Your task to perform on an android device: Is it going to rain tomorrow? Image 0: 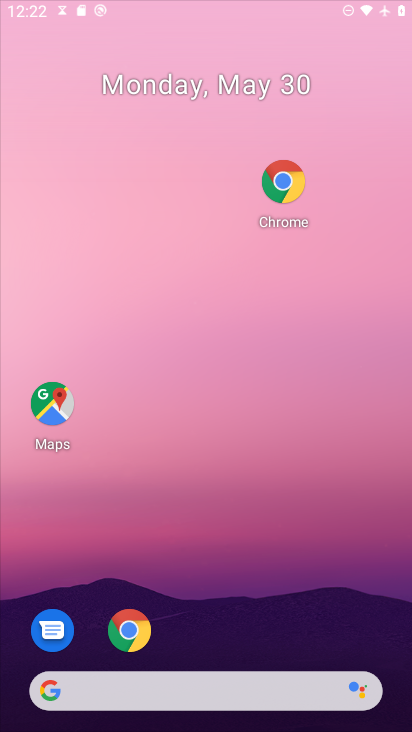
Step 0: drag from (263, 581) to (155, 60)
Your task to perform on an android device: Is it going to rain tomorrow? Image 1: 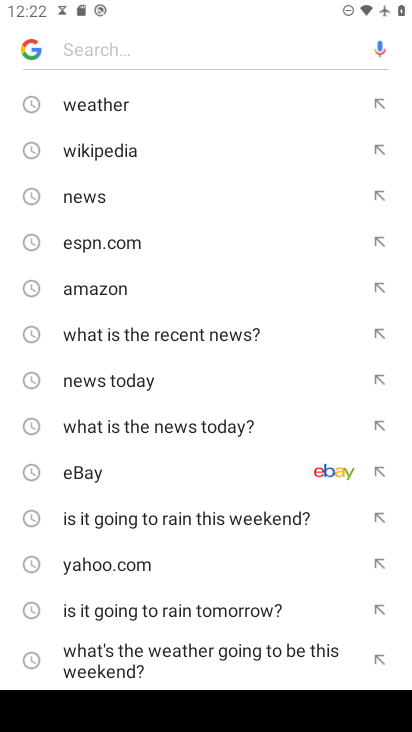
Step 1: press back button
Your task to perform on an android device: Is it going to rain tomorrow? Image 2: 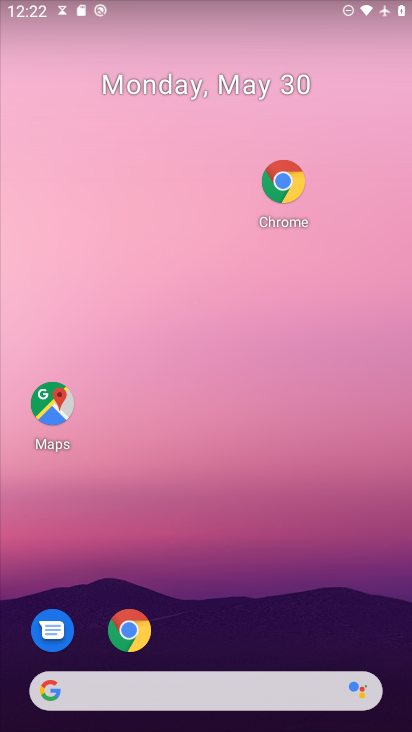
Step 2: drag from (14, 197) to (395, 463)
Your task to perform on an android device: Is it going to rain tomorrow? Image 3: 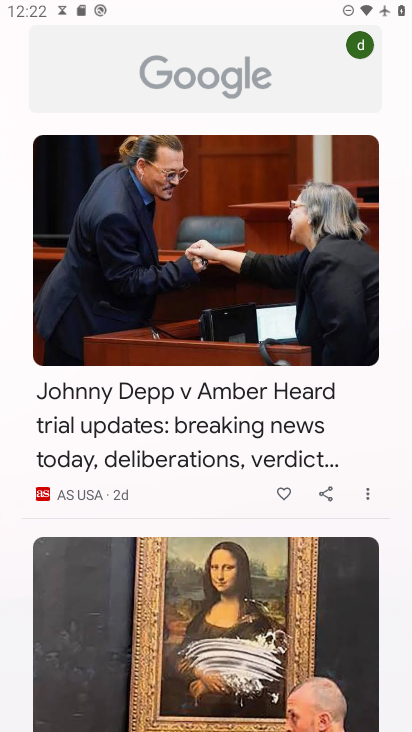
Step 3: drag from (180, 228) to (236, 583)
Your task to perform on an android device: Is it going to rain tomorrow? Image 4: 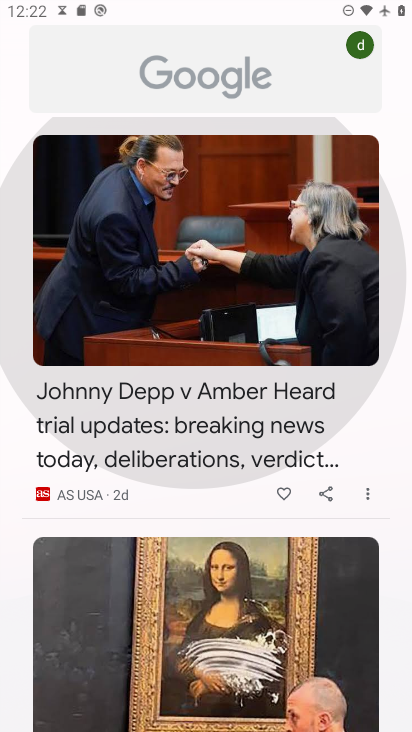
Step 4: drag from (137, 340) to (182, 702)
Your task to perform on an android device: Is it going to rain tomorrow? Image 5: 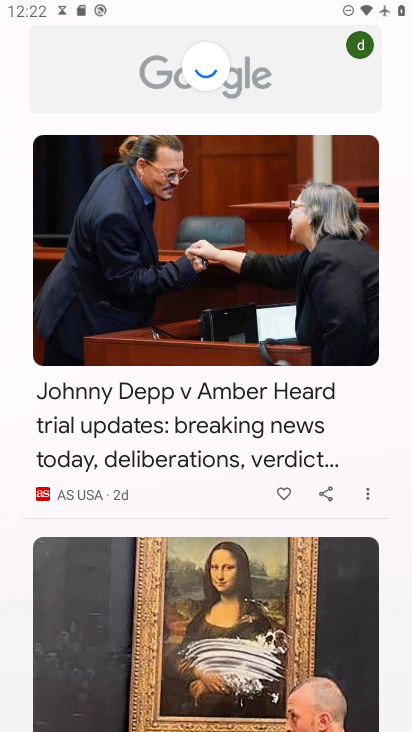
Step 5: drag from (125, 255) to (228, 382)
Your task to perform on an android device: Is it going to rain tomorrow? Image 6: 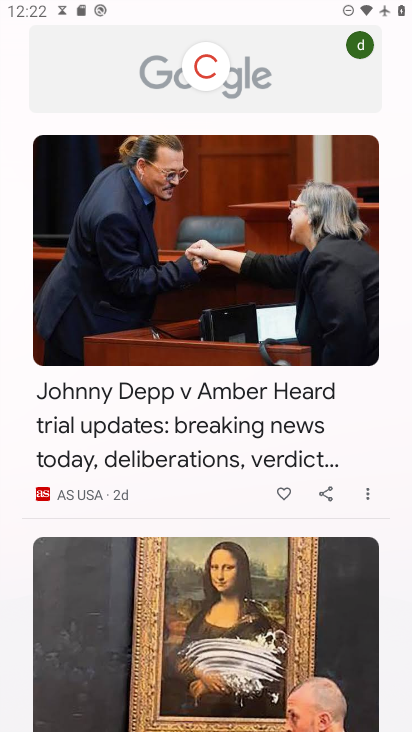
Step 6: drag from (178, 196) to (120, 594)
Your task to perform on an android device: Is it going to rain tomorrow? Image 7: 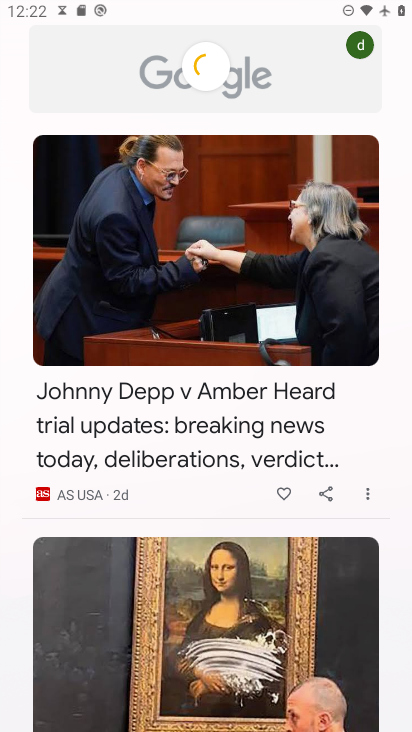
Step 7: drag from (120, 222) to (229, 477)
Your task to perform on an android device: Is it going to rain tomorrow? Image 8: 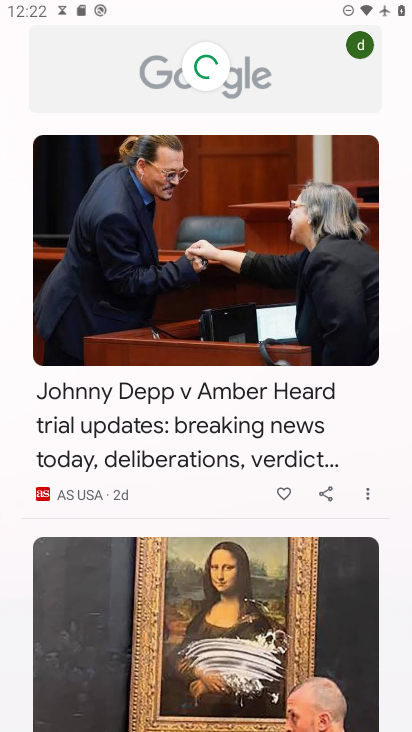
Step 8: drag from (186, 203) to (155, 413)
Your task to perform on an android device: Is it going to rain tomorrow? Image 9: 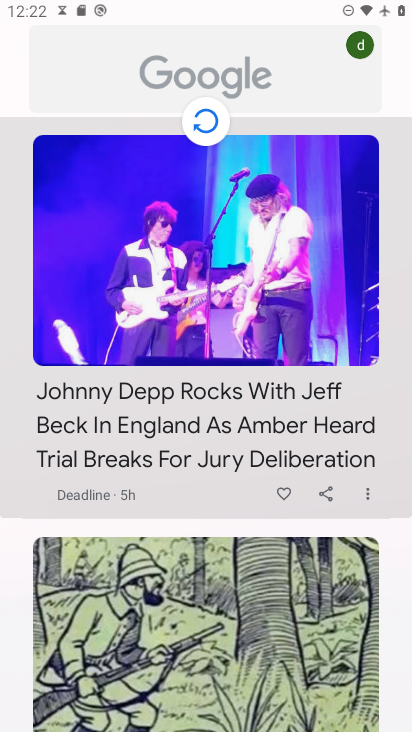
Step 9: click (211, 440)
Your task to perform on an android device: Is it going to rain tomorrow? Image 10: 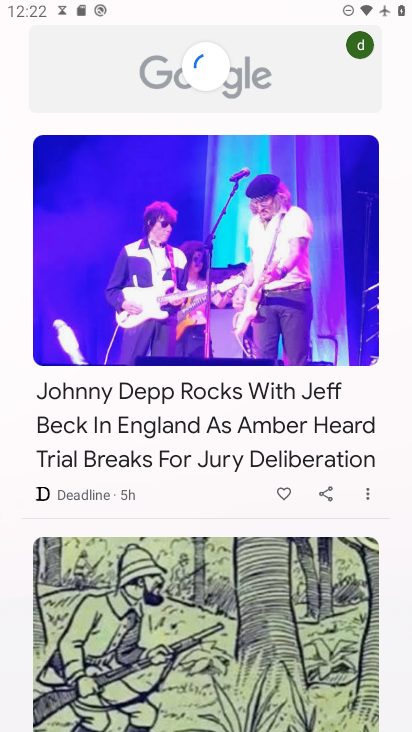
Step 10: drag from (160, 194) to (204, 400)
Your task to perform on an android device: Is it going to rain tomorrow? Image 11: 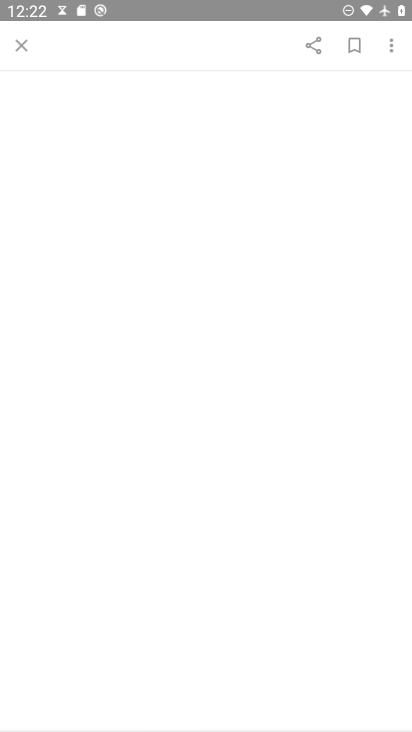
Step 11: drag from (172, 238) to (217, 440)
Your task to perform on an android device: Is it going to rain tomorrow? Image 12: 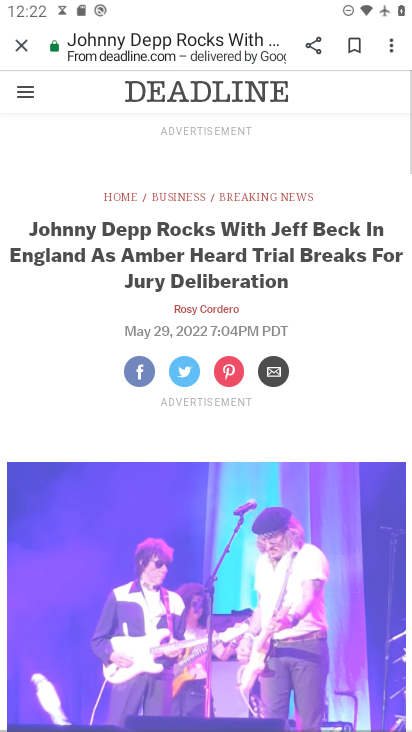
Step 12: click (17, 41)
Your task to perform on an android device: Is it going to rain tomorrow? Image 13: 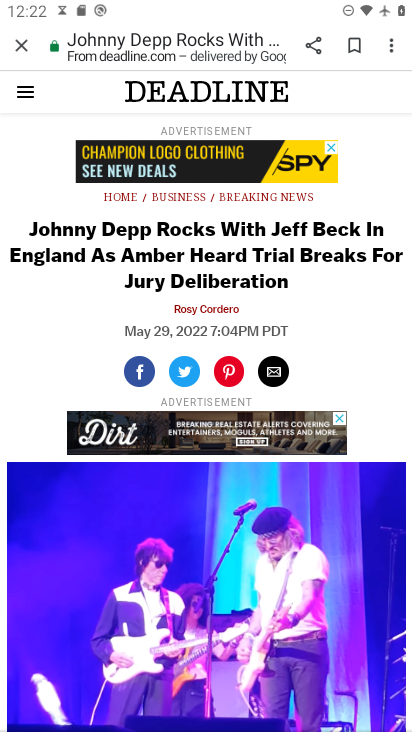
Step 13: task complete